Your task to perform on an android device: check the backup settings in the google photos Image 0: 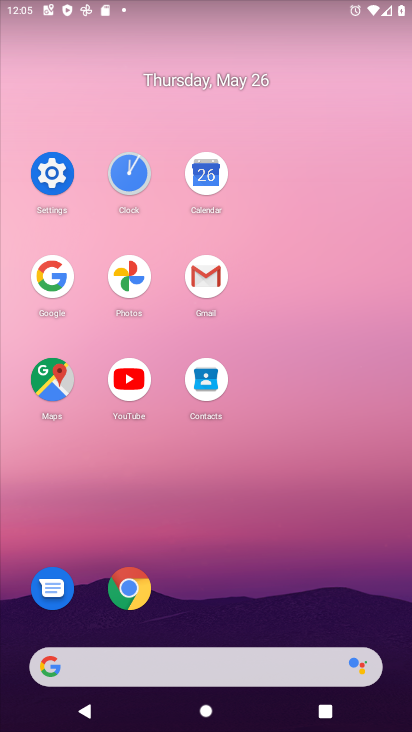
Step 0: click (133, 262)
Your task to perform on an android device: check the backup settings in the google photos Image 1: 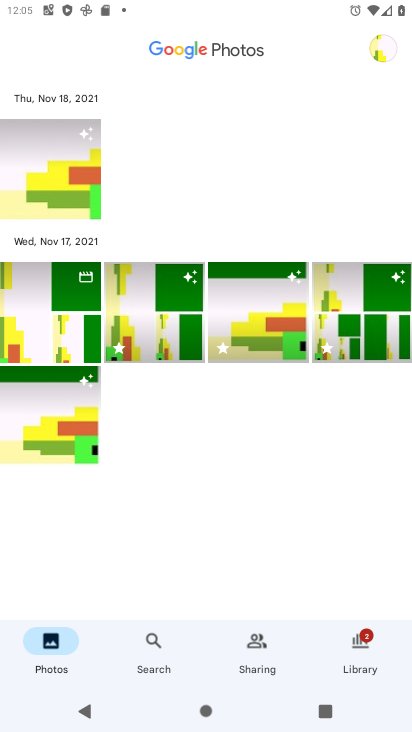
Step 1: click (377, 55)
Your task to perform on an android device: check the backup settings in the google photos Image 2: 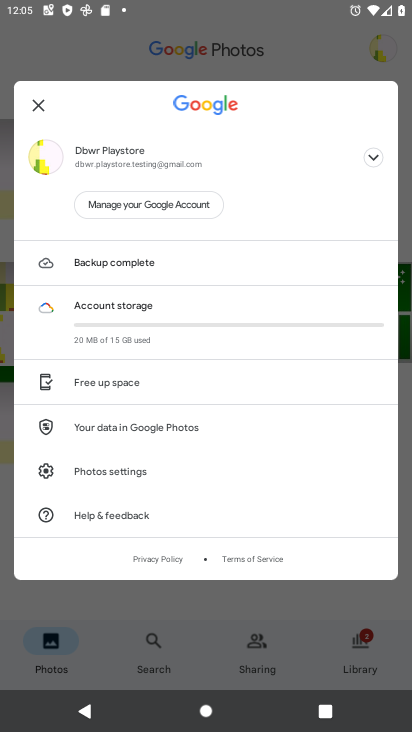
Step 2: click (154, 475)
Your task to perform on an android device: check the backup settings in the google photos Image 3: 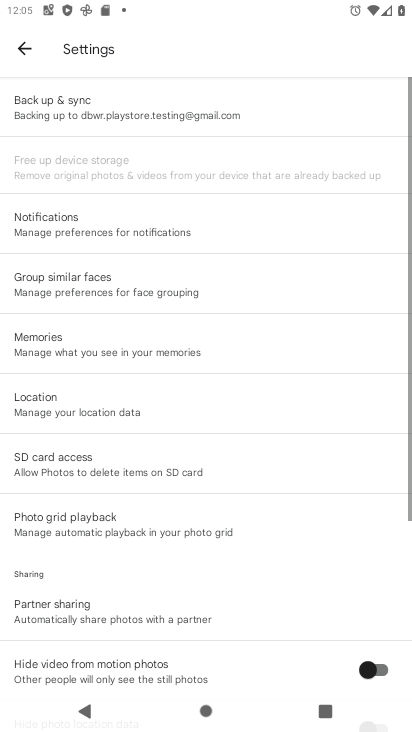
Step 3: click (95, 111)
Your task to perform on an android device: check the backup settings in the google photos Image 4: 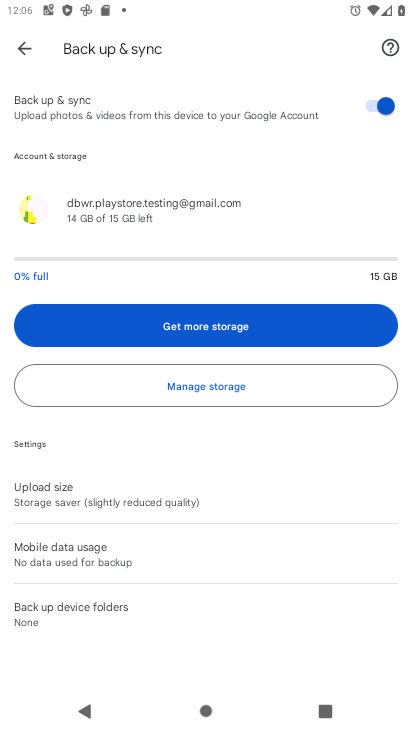
Step 4: task complete